Your task to perform on an android device: Show me recent news Image 0: 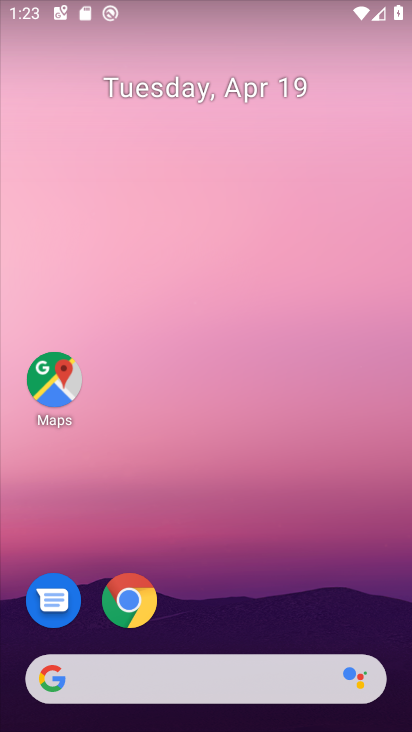
Step 0: drag from (362, 579) to (294, 22)
Your task to perform on an android device: Show me recent news Image 1: 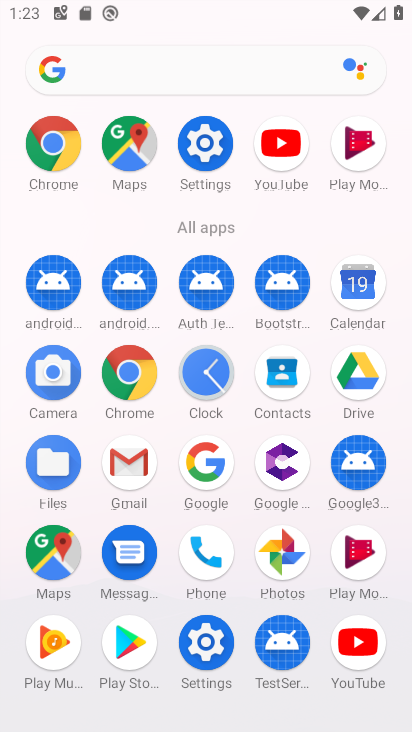
Step 1: click (164, 62)
Your task to perform on an android device: Show me recent news Image 2: 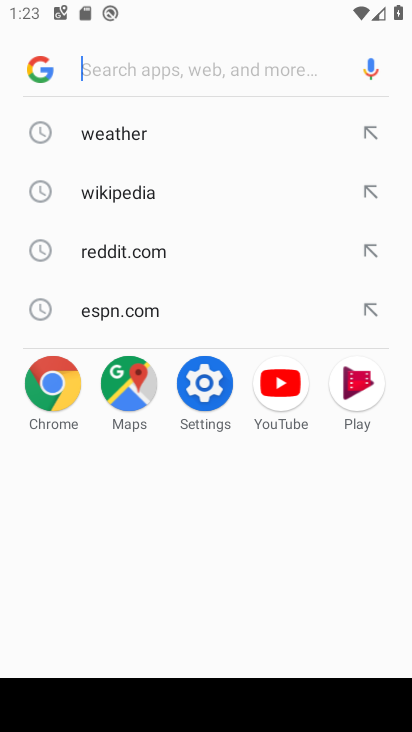
Step 2: type "recent news"
Your task to perform on an android device: Show me recent news Image 3: 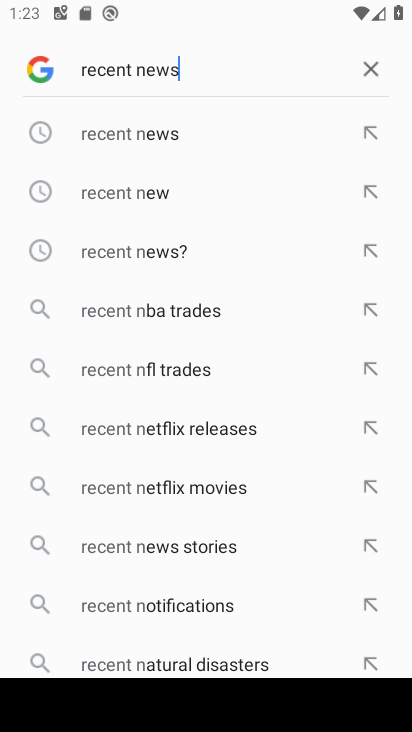
Step 3: type ""
Your task to perform on an android device: Show me recent news Image 4: 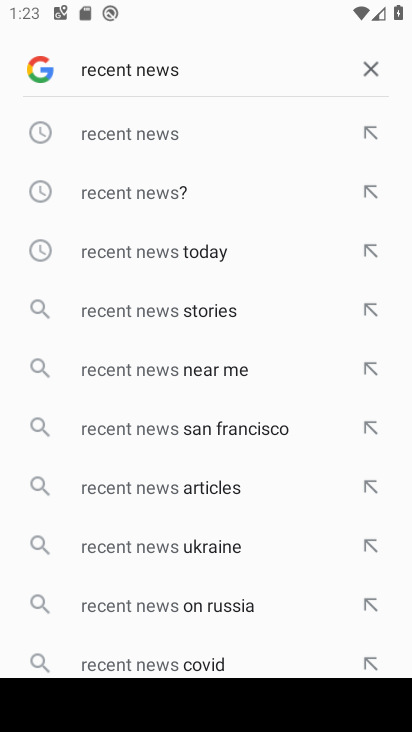
Step 4: click (174, 255)
Your task to perform on an android device: Show me recent news Image 5: 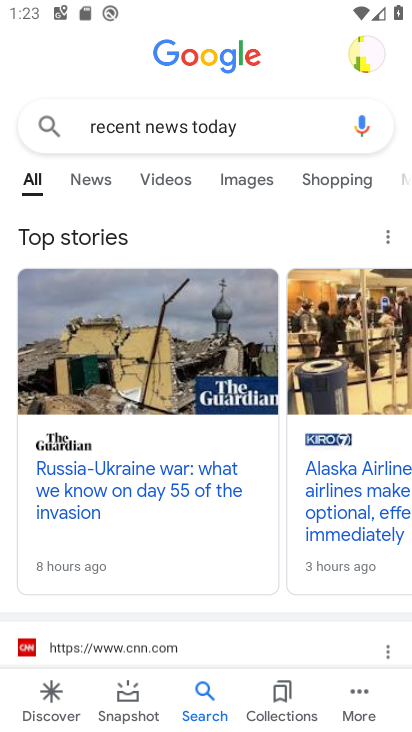
Step 5: task complete